Your task to perform on an android device: Set the phone to "Do not disturb". Image 0: 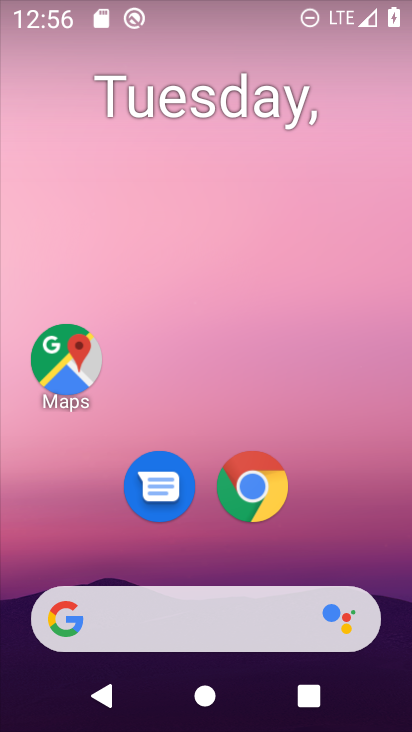
Step 0: press home button
Your task to perform on an android device: Set the phone to "Do not disturb". Image 1: 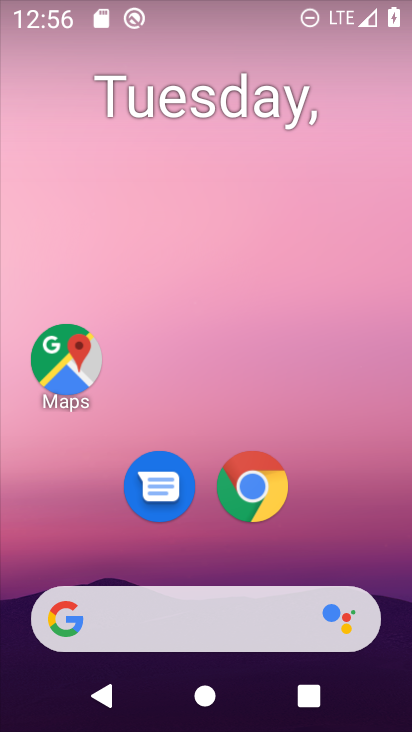
Step 1: task complete